Your task to perform on an android device: change text size in settings app Image 0: 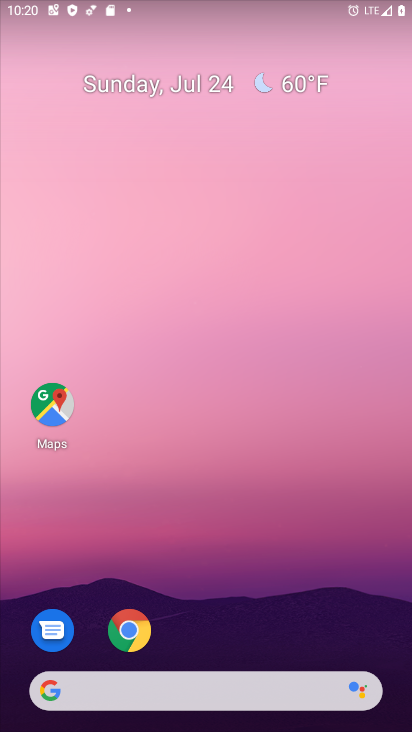
Step 0: drag from (235, 658) to (206, 8)
Your task to perform on an android device: change text size in settings app Image 1: 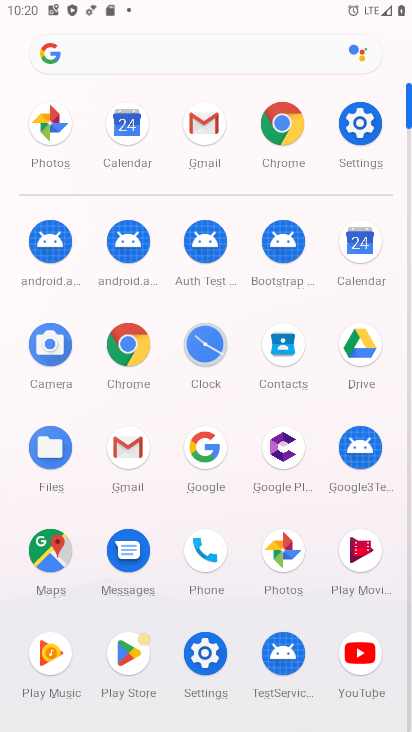
Step 1: click (195, 679)
Your task to perform on an android device: change text size in settings app Image 2: 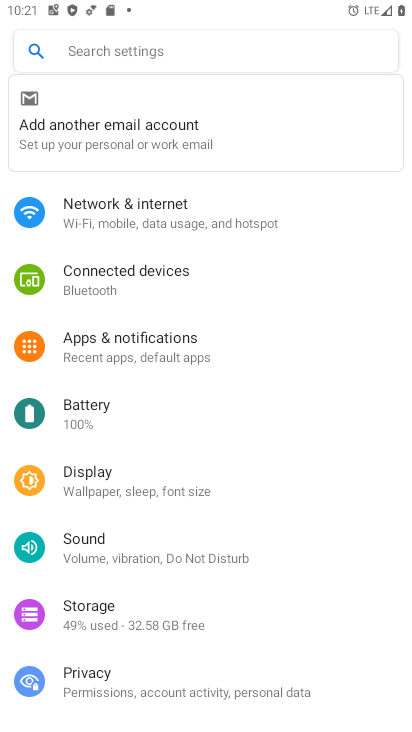
Step 2: click (138, 485)
Your task to perform on an android device: change text size in settings app Image 3: 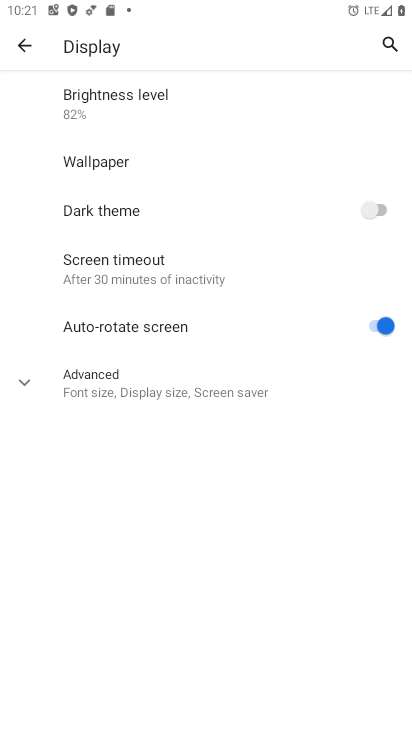
Step 3: click (139, 394)
Your task to perform on an android device: change text size in settings app Image 4: 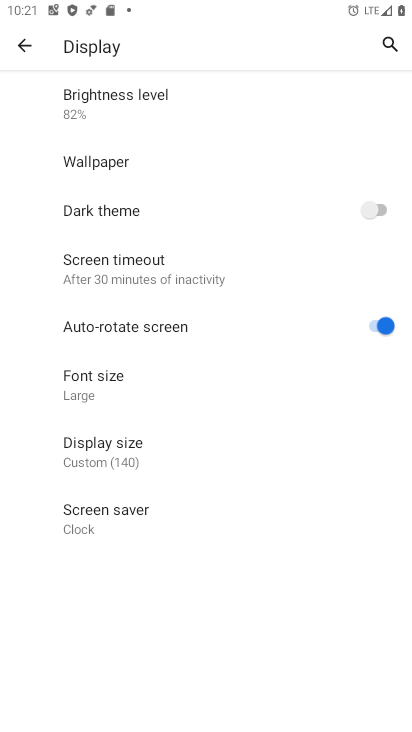
Step 4: click (101, 401)
Your task to perform on an android device: change text size in settings app Image 5: 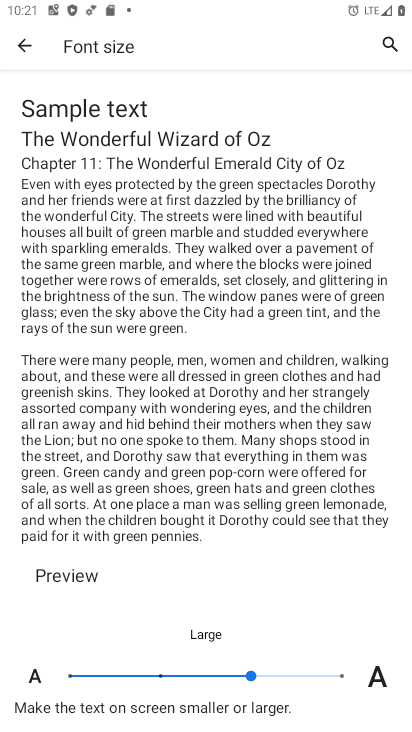
Step 5: click (338, 679)
Your task to perform on an android device: change text size in settings app Image 6: 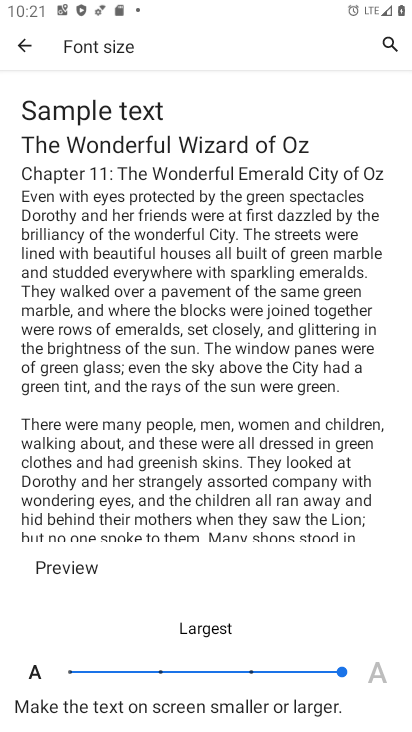
Step 6: task complete